Your task to perform on an android device: turn on the 12-hour format for clock Image 0: 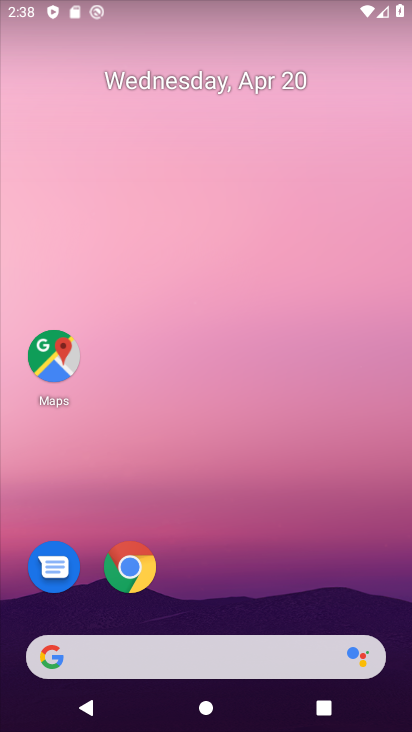
Step 0: click (293, 50)
Your task to perform on an android device: turn on the 12-hour format for clock Image 1: 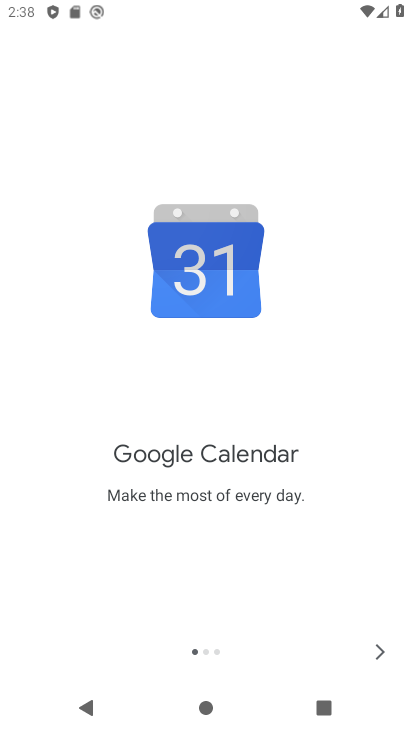
Step 1: press home button
Your task to perform on an android device: turn on the 12-hour format for clock Image 2: 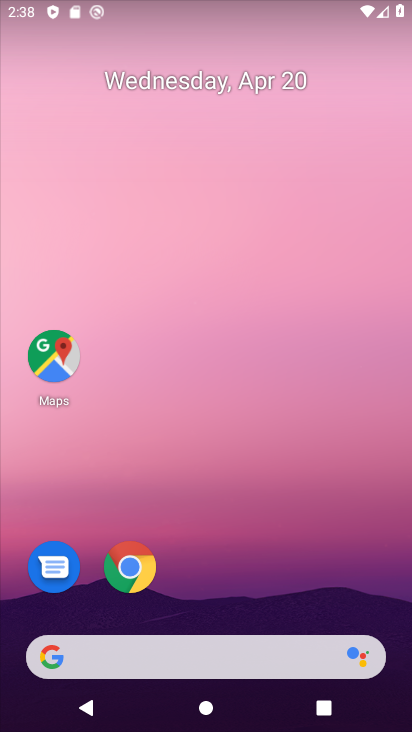
Step 2: drag from (323, 611) to (279, 94)
Your task to perform on an android device: turn on the 12-hour format for clock Image 3: 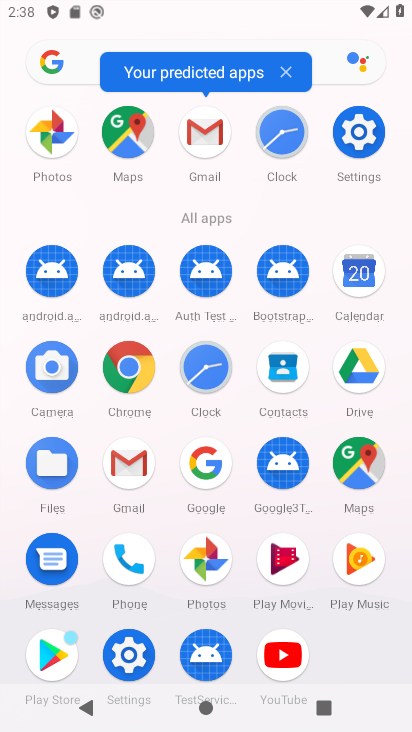
Step 3: click (278, 137)
Your task to perform on an android device: turn on the 12-hour format for clock Image 4: 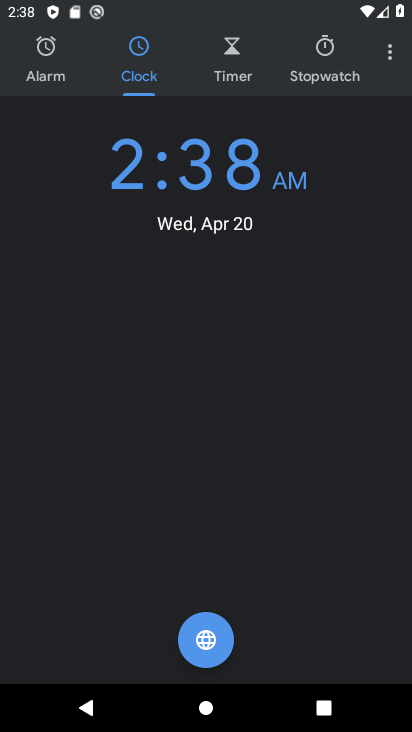
Step 4: click (391, 62)
Your task to perform on an android device: turn on the 12-hour format for clock Image 5: 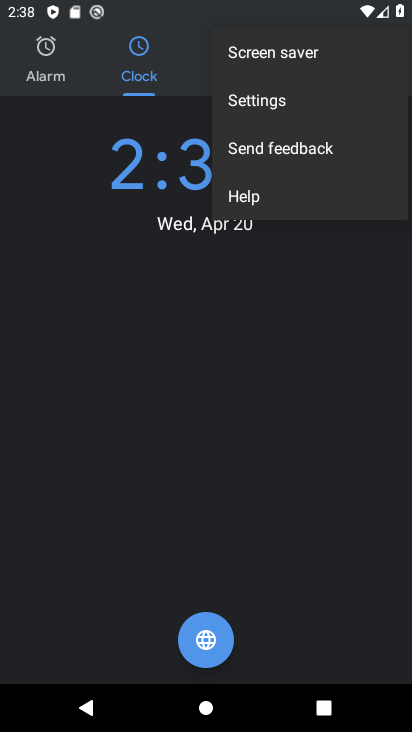
Step 5: click (290, 110)
Your task to perform on an android device: turn on the 12-hour format for clock Image 6: 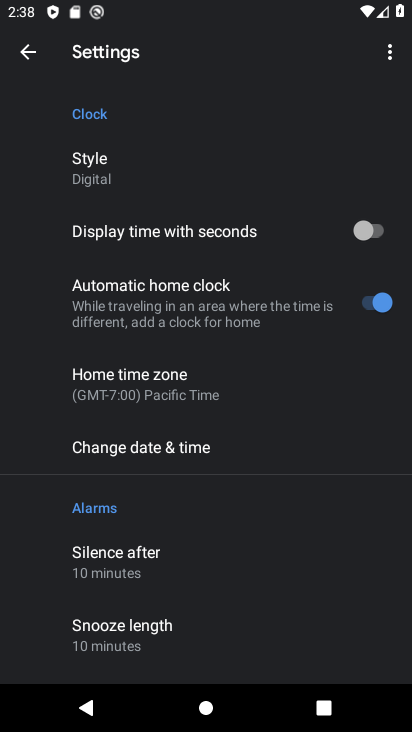
Step 6: click (275, 445)
Your task to perform on an android device: turn on the 12-hour format for clock Image 7: 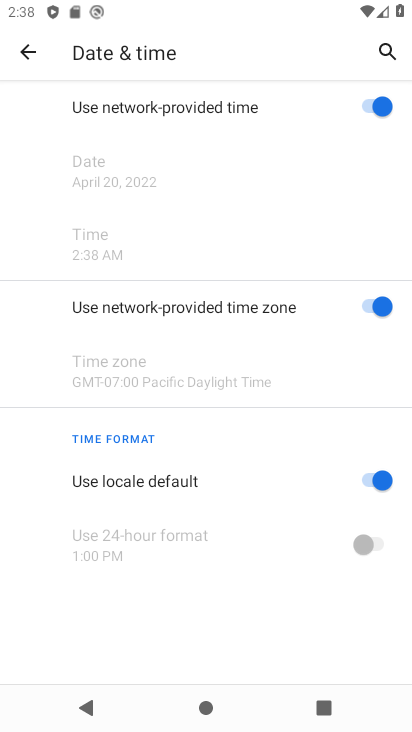
Step 7: task complete